Your task to perform on an android device: change notifications settings Image 0: 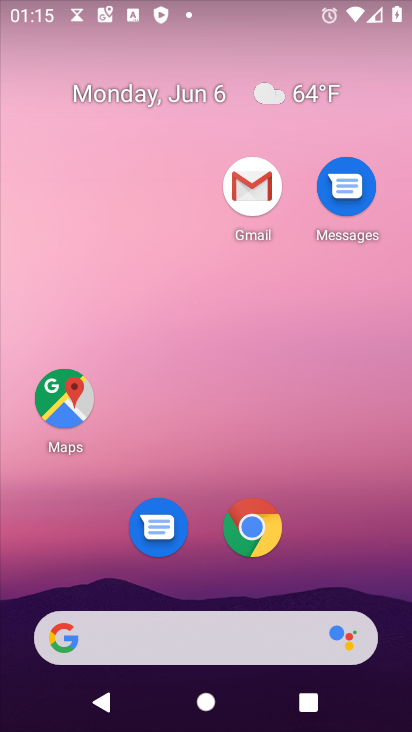
Step 0: drag from (352, 549) to (346, 120)
Your task to perform on an android device: change notifications settings Image 1: 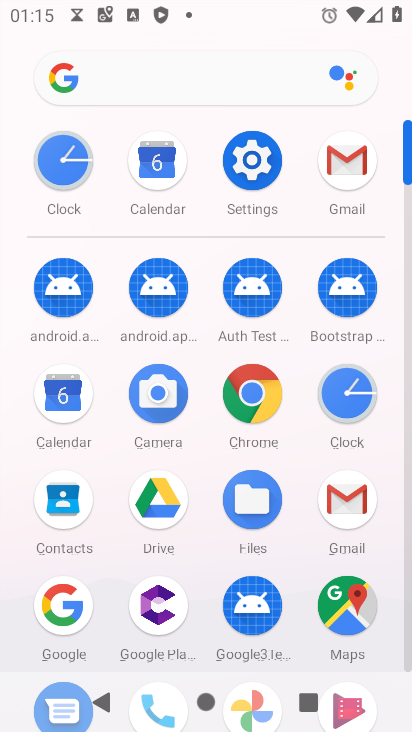
Step 1: click (258, 168)
Your task to perform on an android device: change notifications settings Image 2: 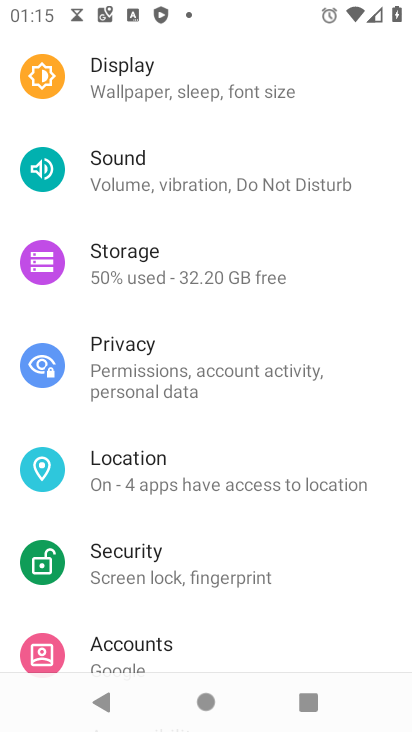
Step 2: drag from (250, 220) to (218, 516)
Your task to perform on an android device: change notifications settings Image 3: 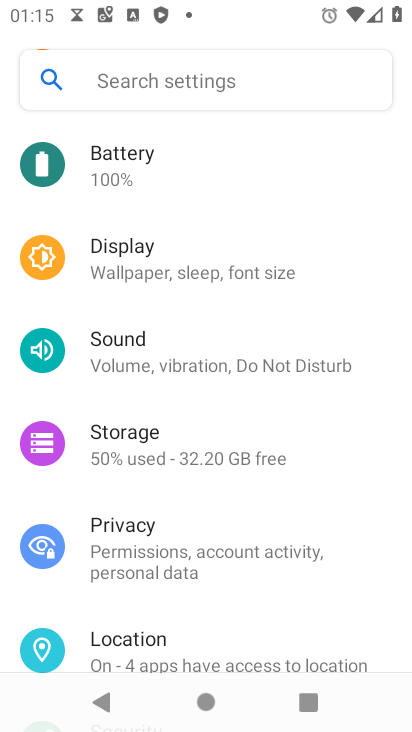
Step 3: drag from (235, 232) to (227, 465)
Your task to perform on an android device: change notifications settings Image 4: 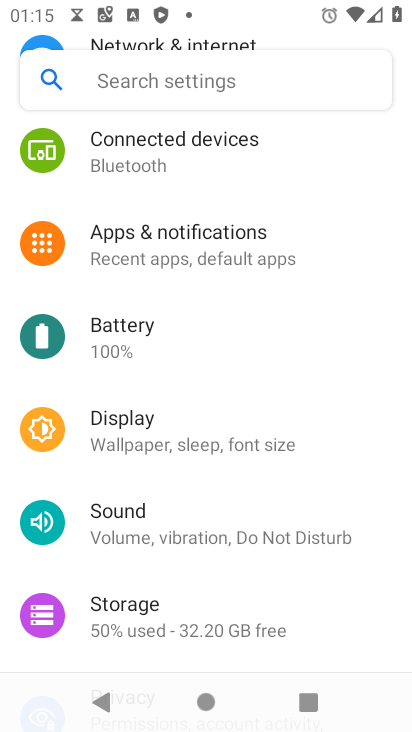
Step 4: click (246, 241)
Your task to perform on an android device: change notifications settings Image 5: 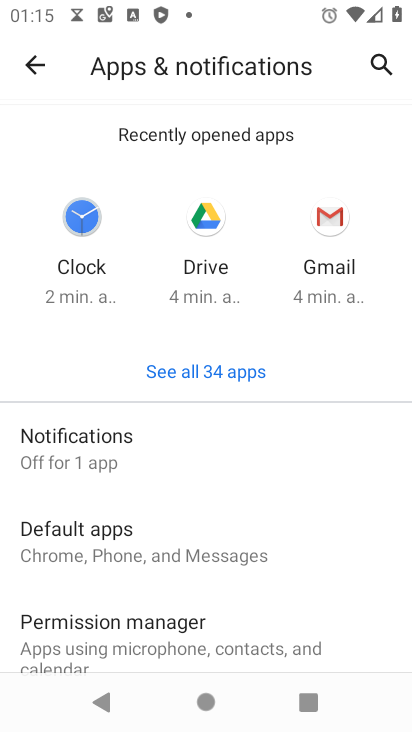
Step 5: drag from (276, 553) to (262, 281)
Your task to perform on an android device: change notifications settings Image 6: 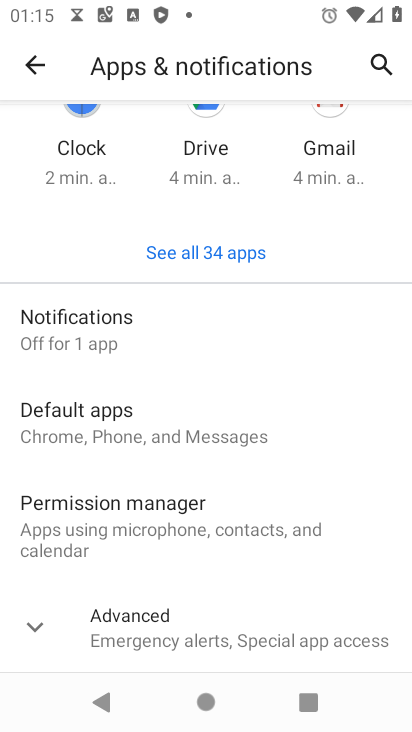
Step 6: click (203, 630)
Your task to perform on an android device: change notifications settings Image 7: 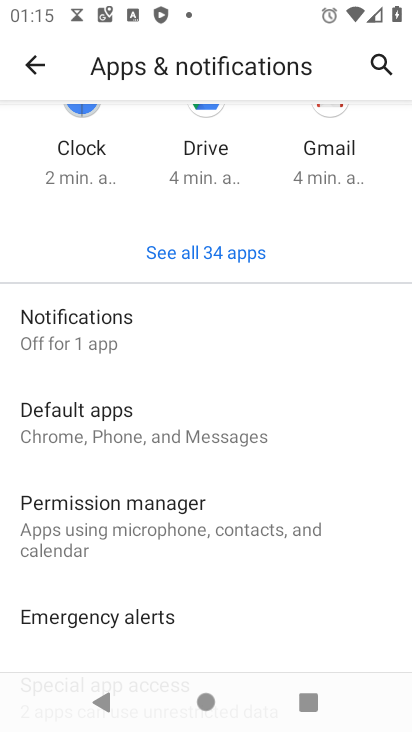
Step 7: drag from (237, 575) to (235, 216)
Your task to perform on an android device: change notifications settings Image 8: 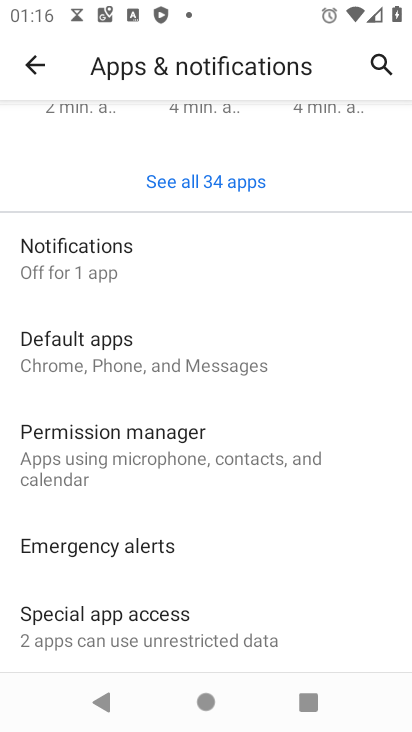
Step 8: click (169, 260)
Your task to perform on an android device: change notifications settings Image 9: 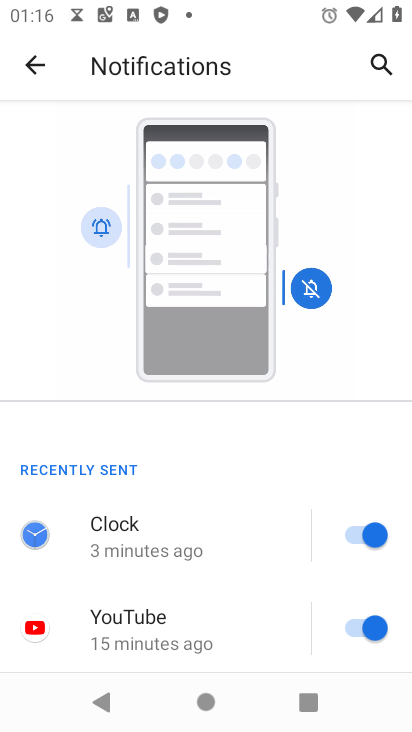
Step 9: drag from (260, 602) to (264, 134)
Your task to perform on an android device: change notifications settings Image 10: 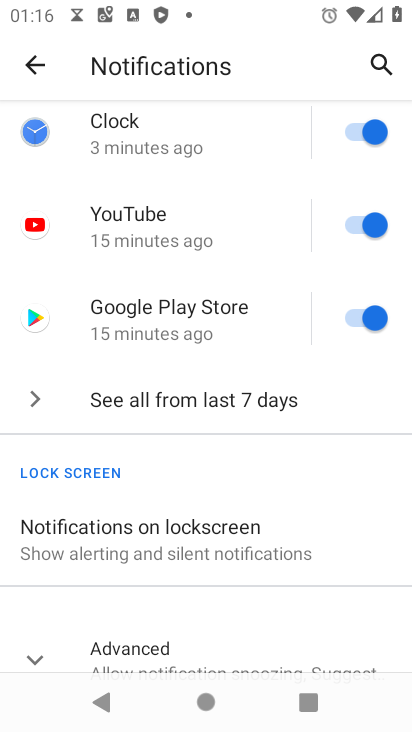
Step 10: click (360, 317)
Your task to perform on an android device: change notifications settings Image 11: 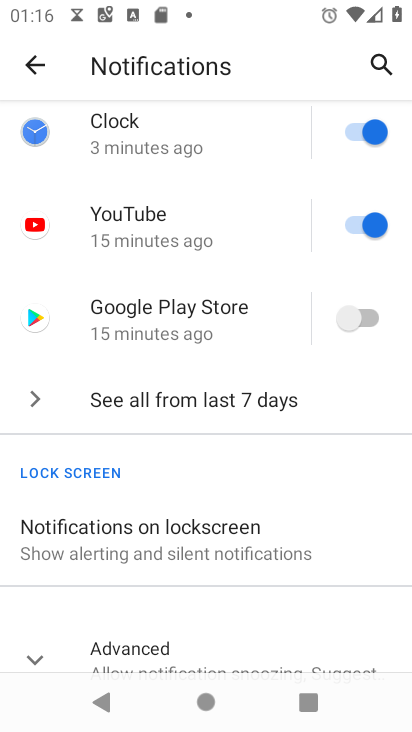
Step 11: task complete